Your task to perform on an android device: Go to settings Image 0: 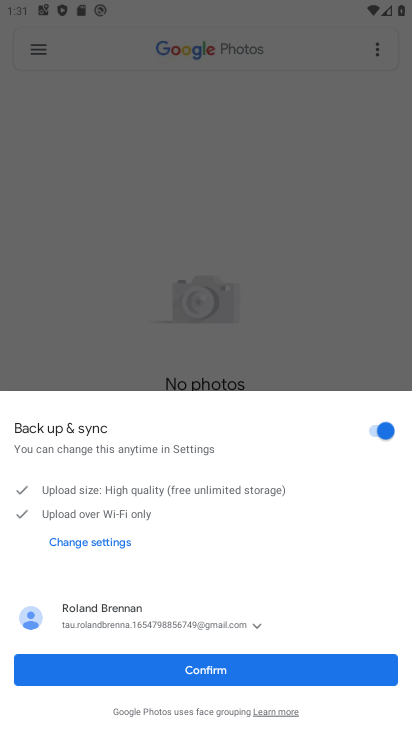
Step 0: click (234, 651)
Your task to perform on an android device: Go to settings Image 1: 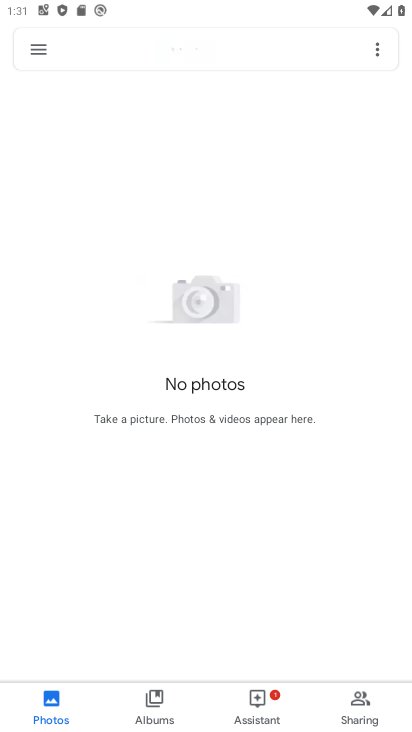
Step 1: press home button
Your task to perform on an android device: Go to settings Image 2: 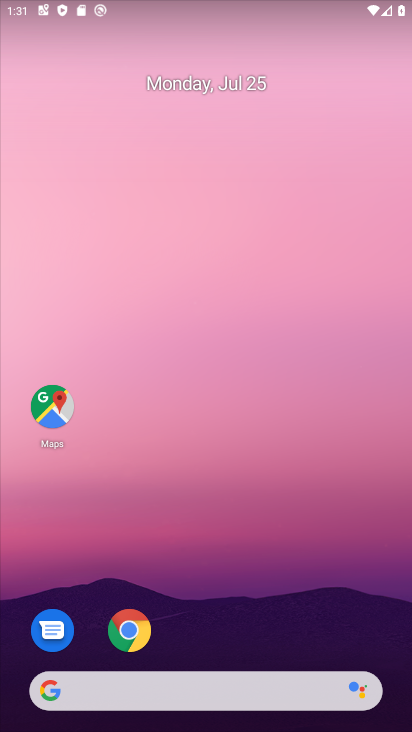
Step 2: drag from (276, 631) to (201, 0)
Your task to perform on an android device: Go to settings Image 3: 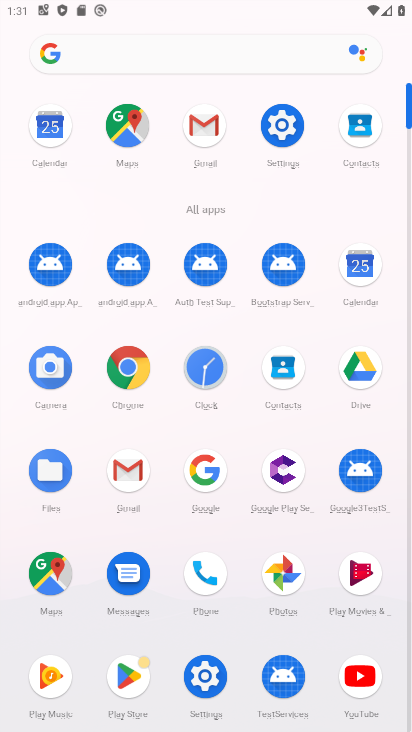
Step 3: click (281, 145)
Your task to perform on an android device: Go to settings Image 4: 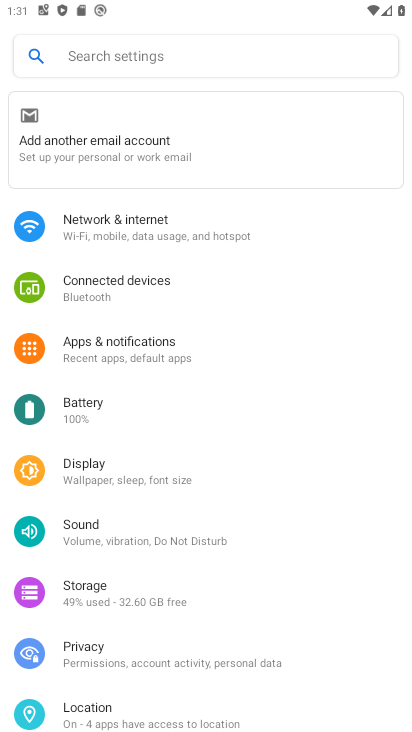
Step 4: task complete